Your task to perform on an android device: Do I have any events tomorrow? Image 0: 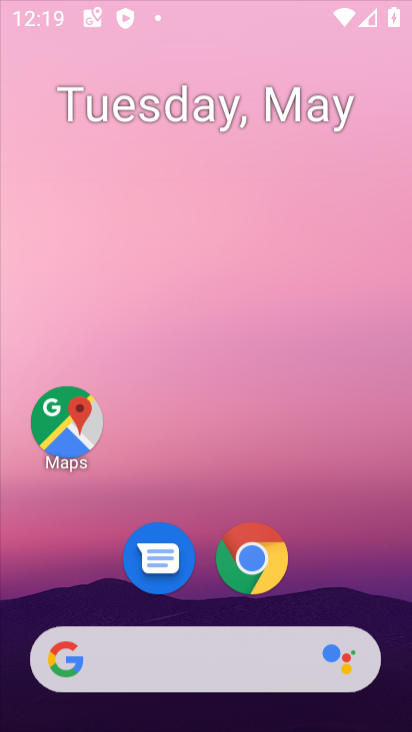
Step 0: drag from (297, 336) to (293, 40)
Your task to perform on an android device: Do I have any events tomorrow? Image 1: 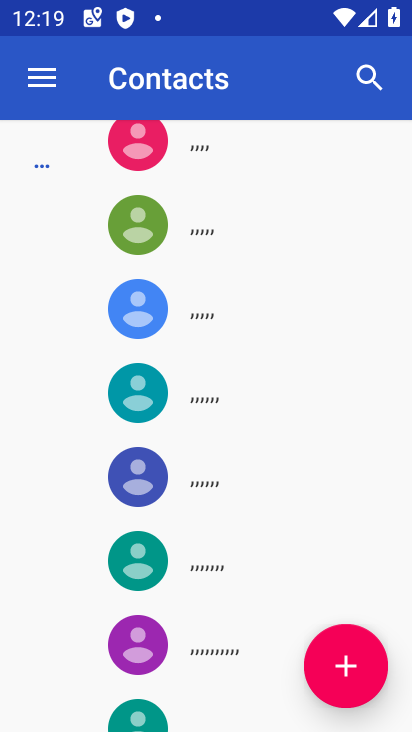
Step 1: press home button
Your task to perform on an android device: Do I have any events tomorrow? Image 2: 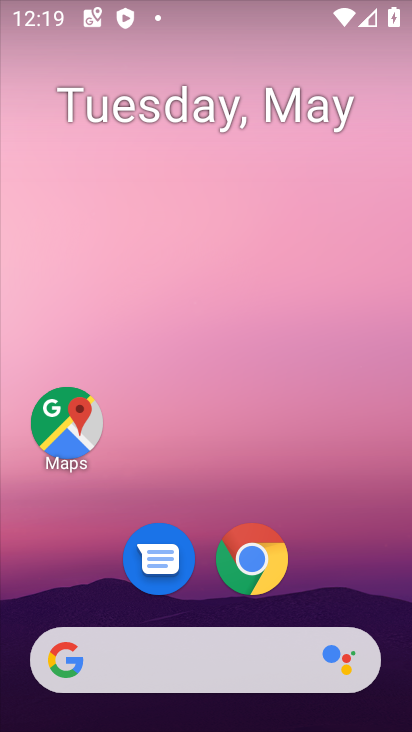
Step 2: drag from (344, 587) to (307, 0)
Your task to perform on an android device: Do I have any events tomorrow? Image 3: 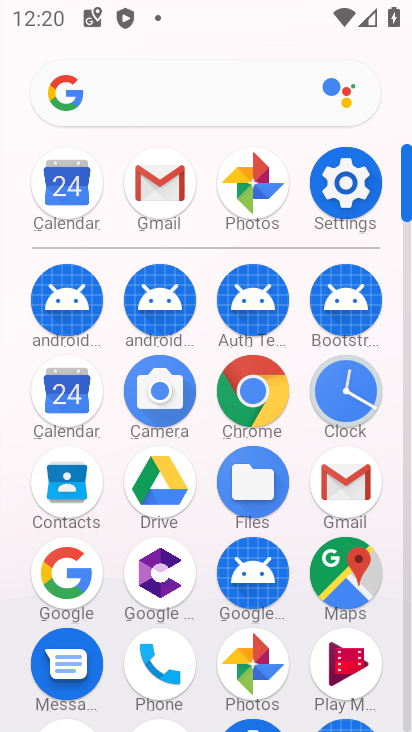
Step 3: click (76, 198)
Your task to perform on an android device: Do I have any events tomorrow? Image 4: 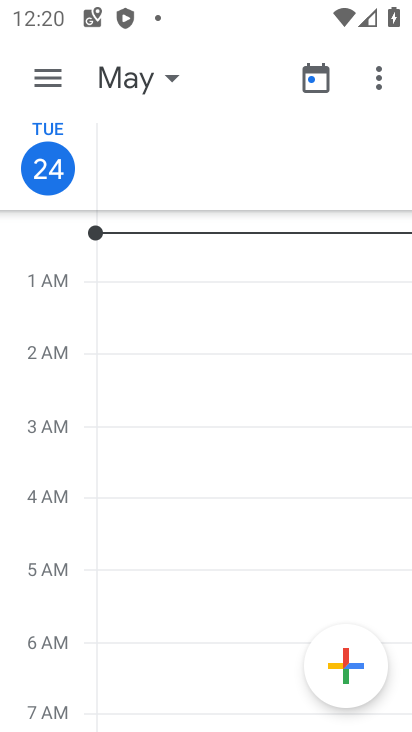
Step 4: task complete